Your task to perform on an android device: toggle location history Image 0: 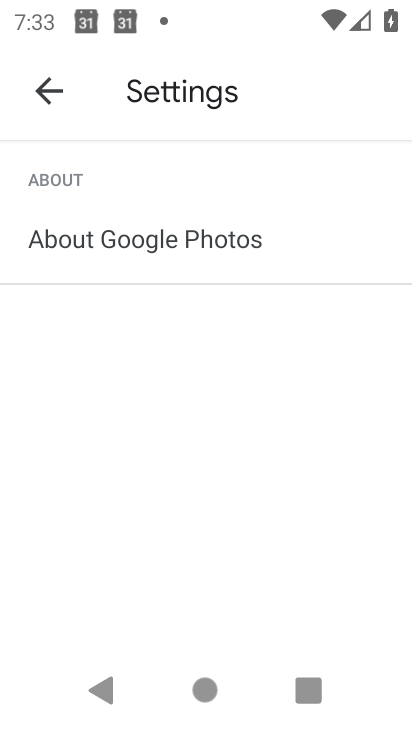
Step 0: press back button
Your task to perform on an android device: toggle location history Image 1: 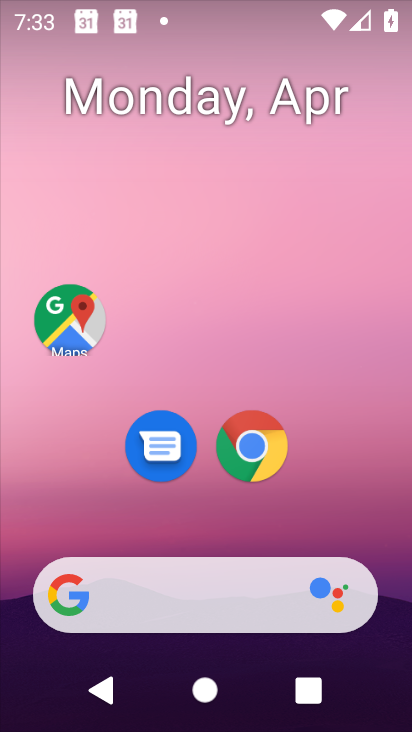
Step 1: drag from (395, 668) to (232, 42)
Your task to perform on an android device: toggle location history Image 2: 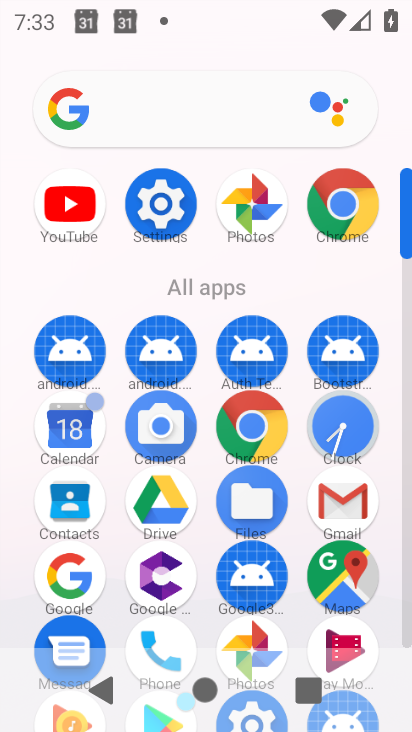
Step 2: click (343, 575)
Your task to perform on an android device: toggle location history Image 3: 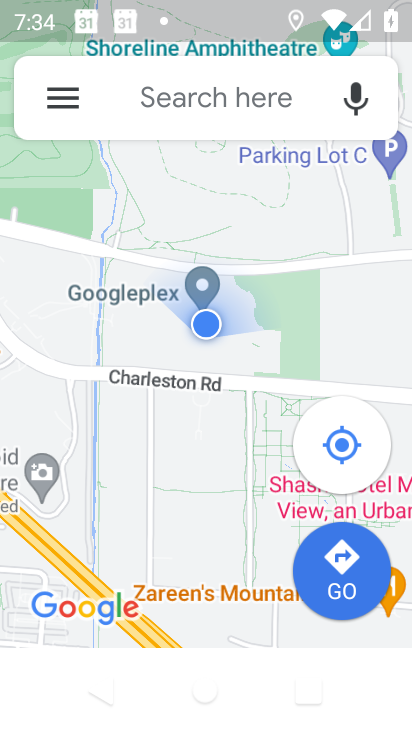
Step 3: click (54, 93)
Your task to perform on an android device: toggle location history Image 4: 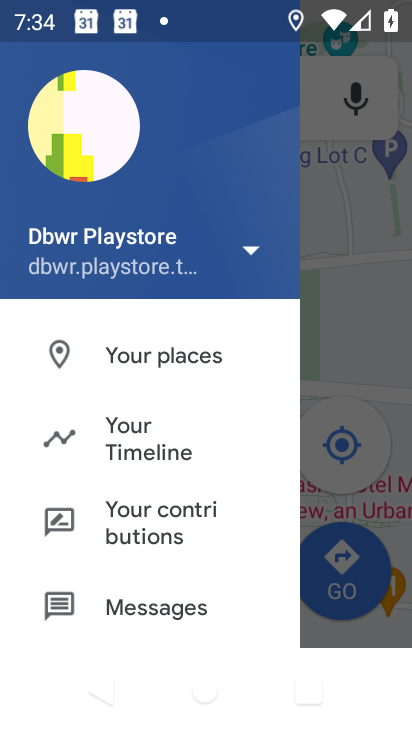
Step 4: drag from (153, 535) to (148, 299)
Your task to perform on an android device: toggle location history Image 5: 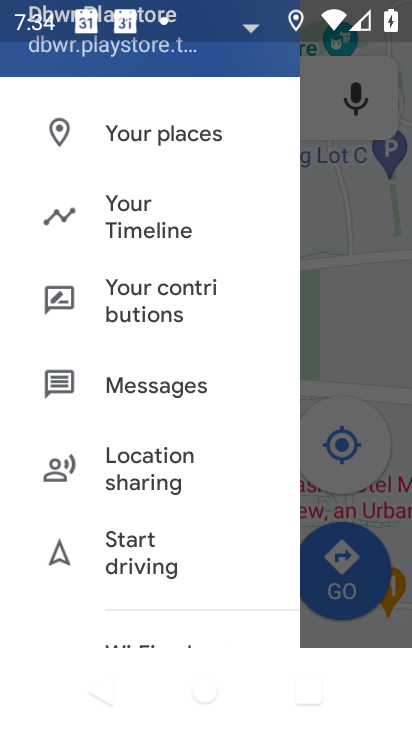
Step 5: drag from (171, 589) to (165, 165)
Your task to perform on an android device: toggle location history Image 6: 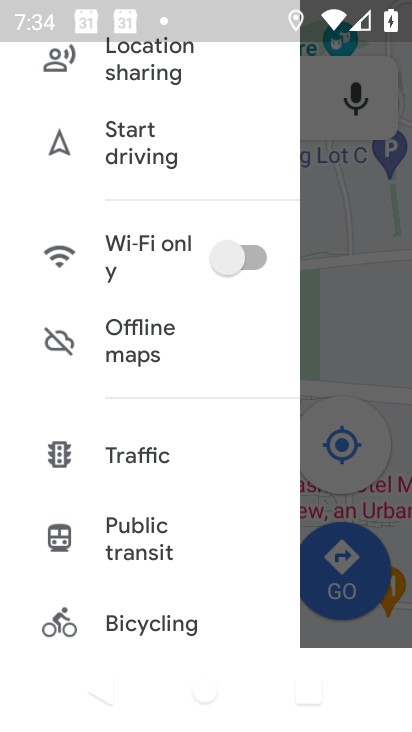
Step 6: drag from (133, 568) to (123, 107)
Your task to perform on an android device: toggle location history Image 7: 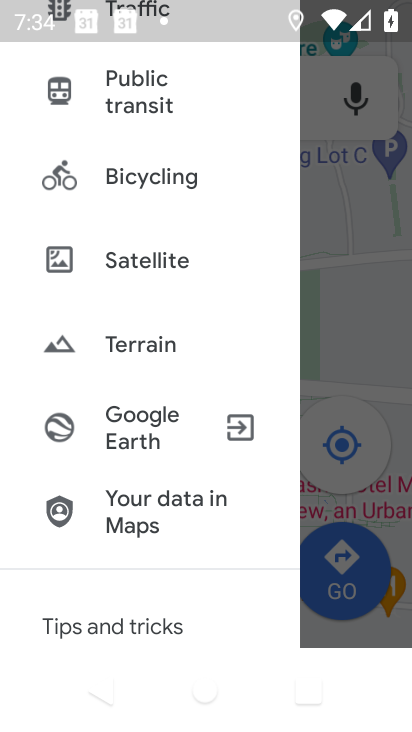
Step 7: drag from (89, 630) to (127, 167)
Your task to perform on an android device: toggle location history Image 8: 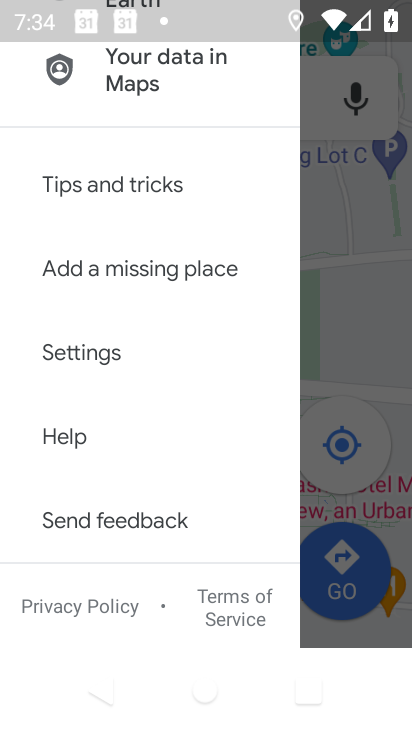
Step 8: click (90, 359)
Your task to perform on an android device: toggle location history Image 9: 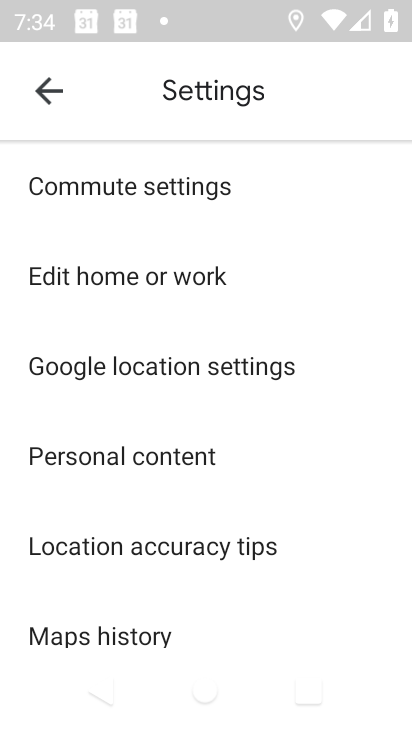
Step 9: drag from (263, 521) to (252, 164)
Your task to perform on an android device: toggle location history Image 10: 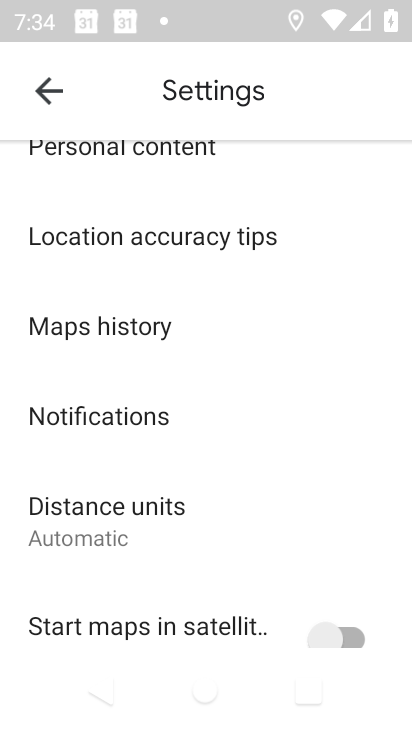
Step 10: drag from (185, 538) to (195, 169)
Your task to perform on an android device: toggle location history Image 11: 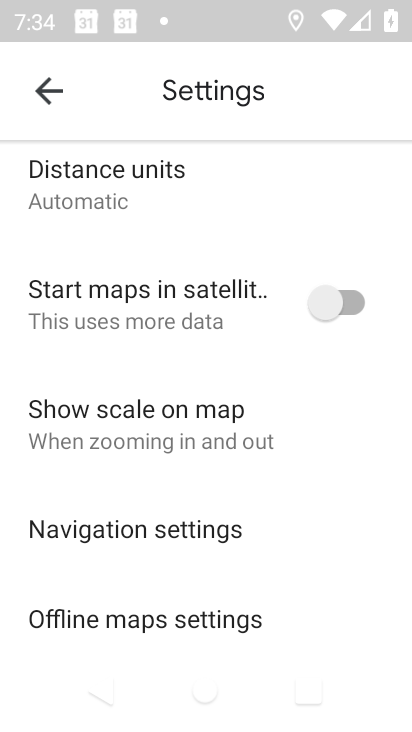
Step 11: drag from (166, 510) to (163, 228)
Your task to perform on an android device: toggle location history Image 12: 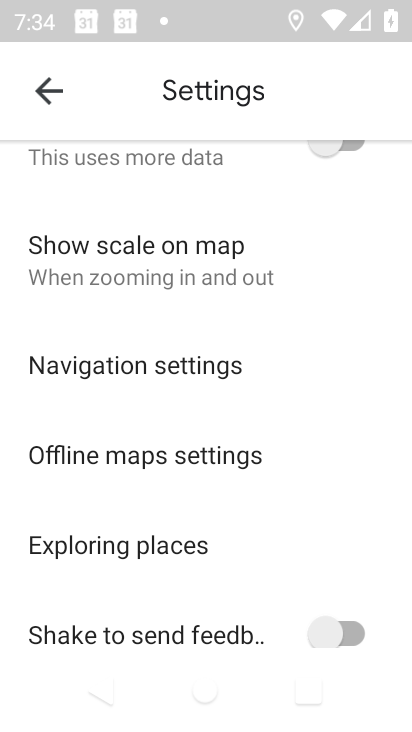
Step 12: drag from (130, 499) to (147, 199)
Your task to perform on an android device: toggle location history Image 13: 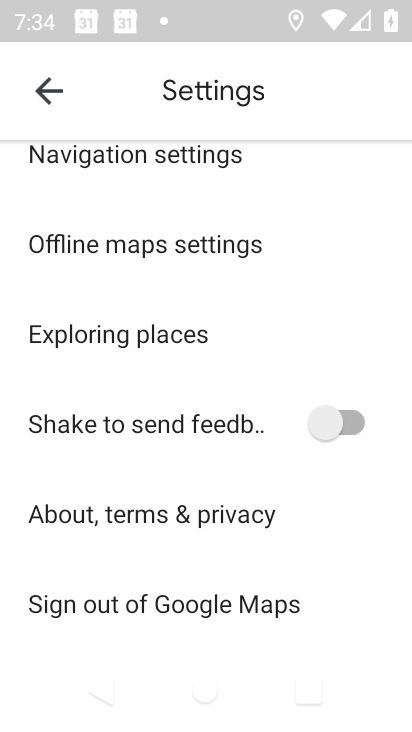
Step 13: drag from (146, 555) to (165, 281)
Your task to perform on an android device: toggle location history Image 14: 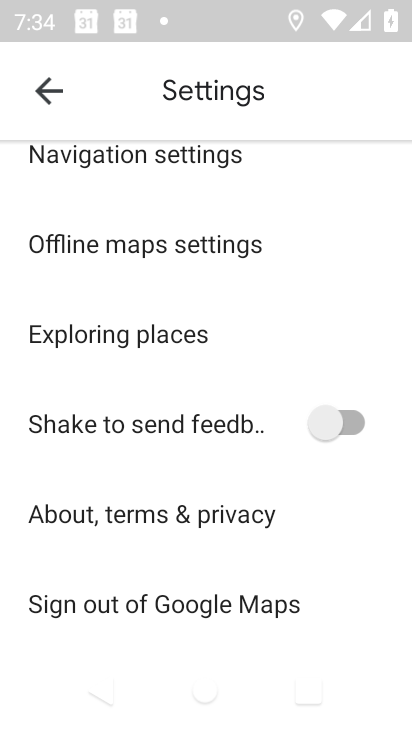
Step 14: drag from (178, 299) to (160, 596)
Your task to perform on an android device: toggle location history Image 15: 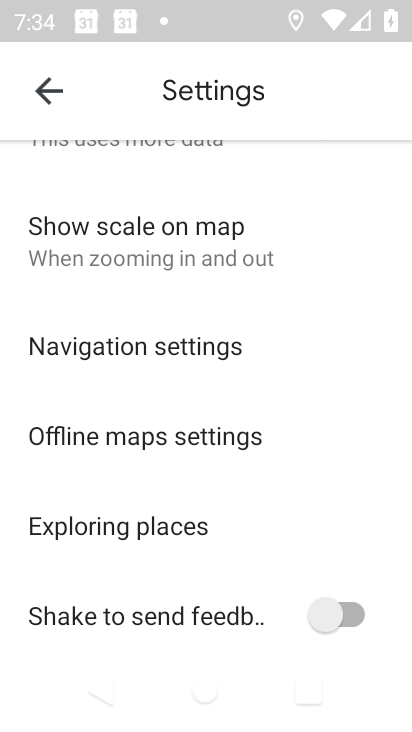
Step 15: drag from (164, 238) to (136, 595)
Your task to perform on an android device: toggle location history Image 16: 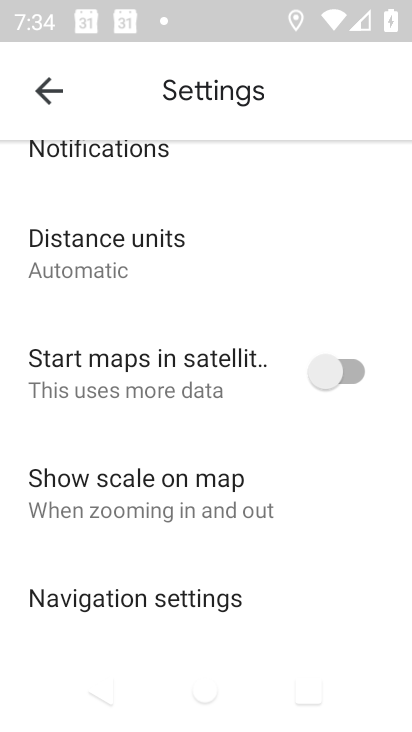
Step 16: drag from (147, 375) to (140, 580)
Your task to perform on an android device: toggle location history Image 17: 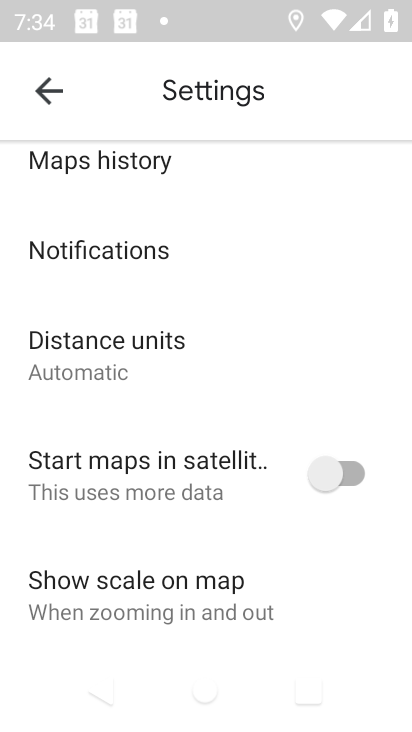
Step 17: drag from (151, 255) to (129, 568)
Your task to perform on an android device: toggle location history Image 18: 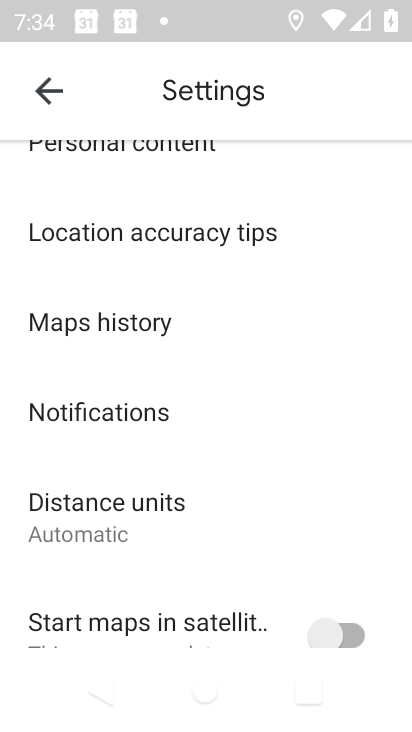
Step 18: click (117, 335)
Your task to perform on an android device: toggle location history Image 19: 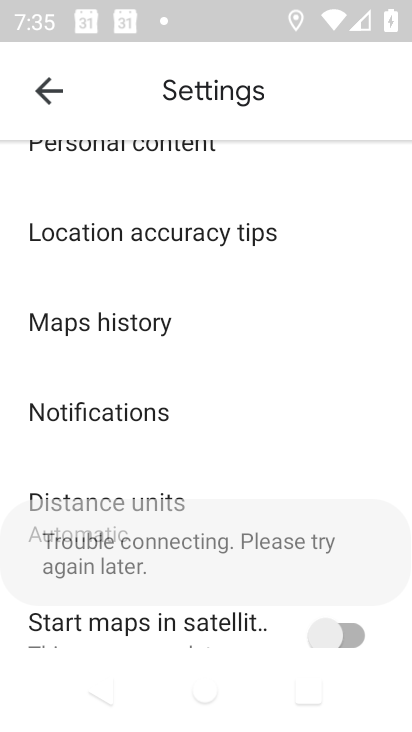
Step 19: drag from (258, 242) to (258, 453)
Your task to perform on an android device: toggle location history Image 20: 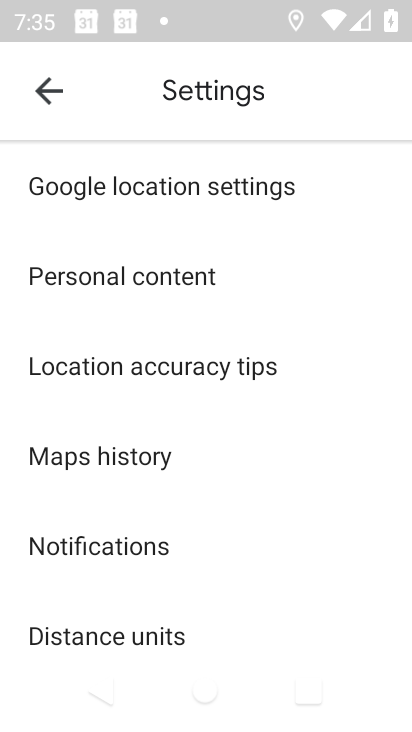
Step 20: click (218, 192)
Your task to perform on an android device: toggle location history Image 21: 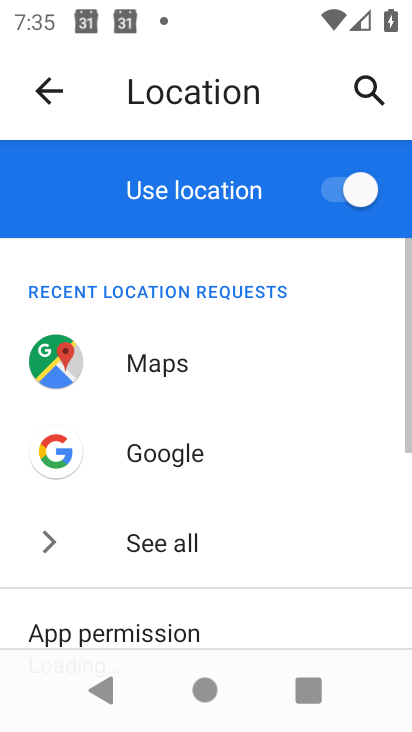
Step 21: drag from (256, 538) to (228, 146)
Your task to perform on an android device: toggle location history Image 22: 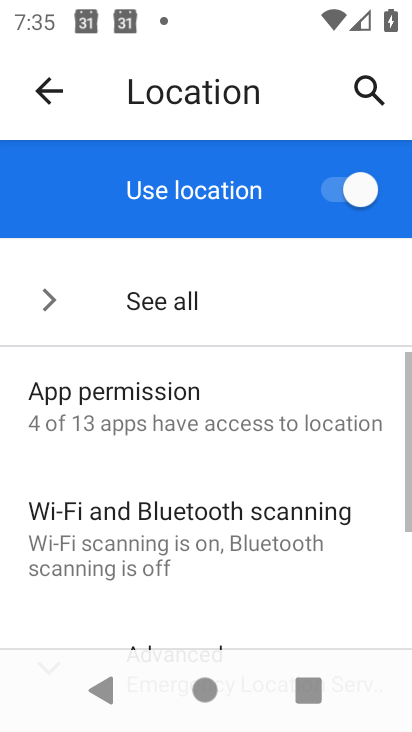
Step 22: drag from (259, 579) to (257, 229)
Your task to perform on an android device: toggle location history Image 23: 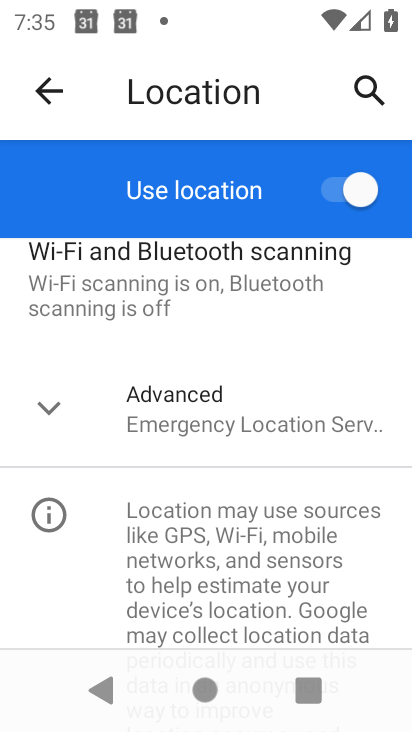
Step 23: click (219, 409)
Your task to perform on an android device: toggle location history Image 24: 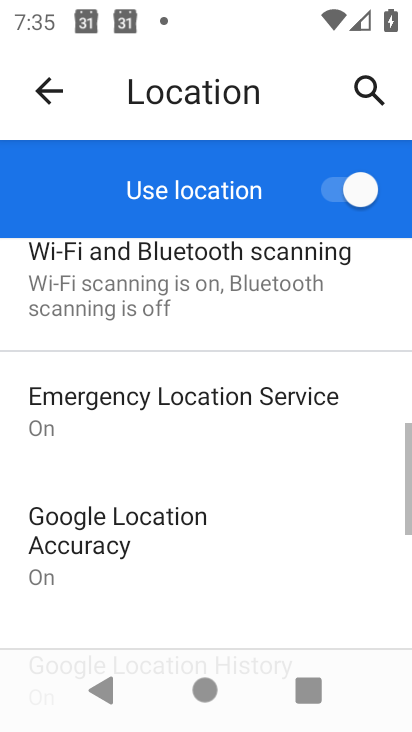
Step 24: drag from (226, 579) to (228, 267)
Your task to perform on an android device: toggle location history Image 25: 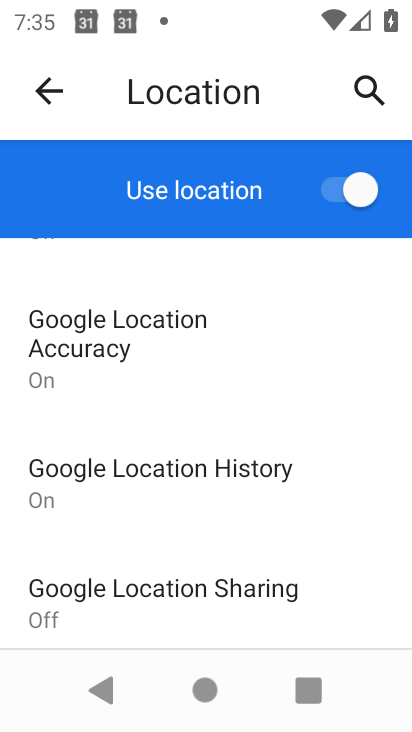
Step 25: click (192, 480)
Your task to perform on an android device: toggle location history Image 26: 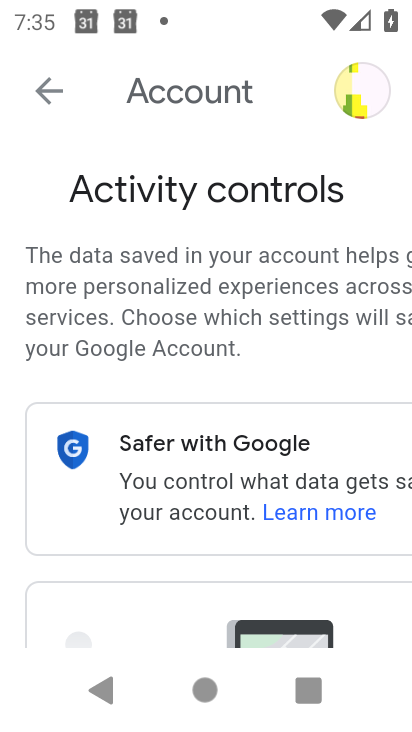
Step 26: drag from (142, 375) to (99, 124)
Your task to perform on an android device: toggle location history Image 27: 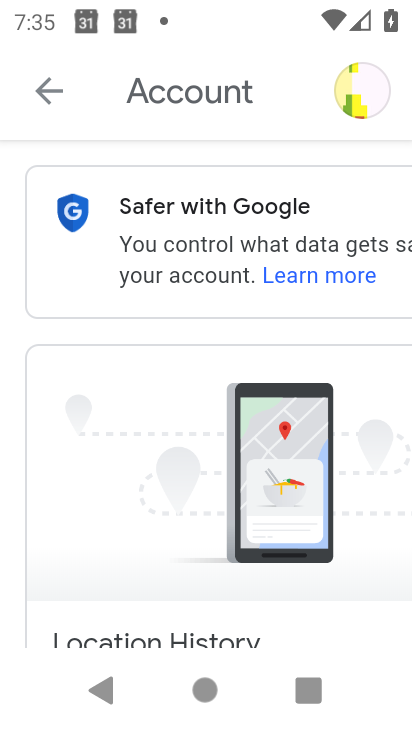
Step 27: drag from (173, 464) to (64, 159)
Your task to perform on an android device: toggle location history Image 28: 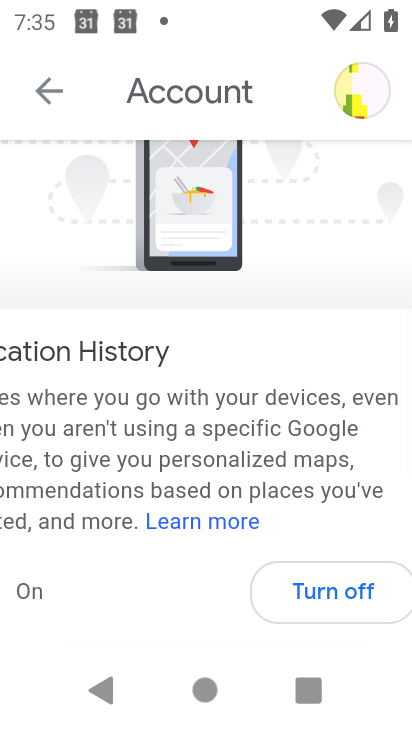
Step 28: drag from (174, 464) to (98, 161)
Your task to perform on an android device: toggle location history Image 29: 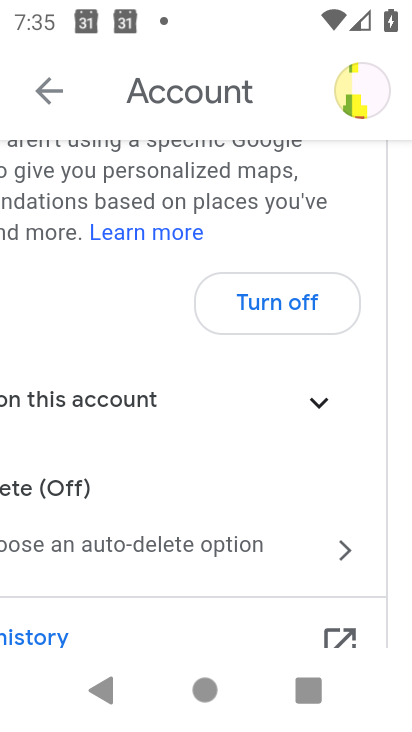
Step 29: drag from (135, 255) to (126, 390)
Your task to perform on an android device: toggle location history Image 30: 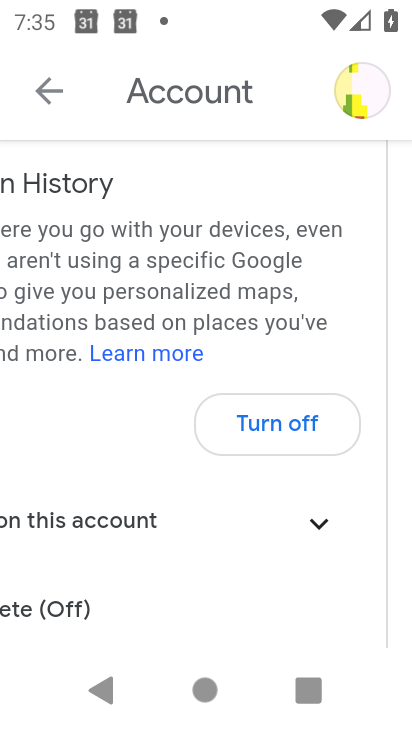
Step 30: click (272, 408)
Your task to perform on an android device: toggle location history Image 31: 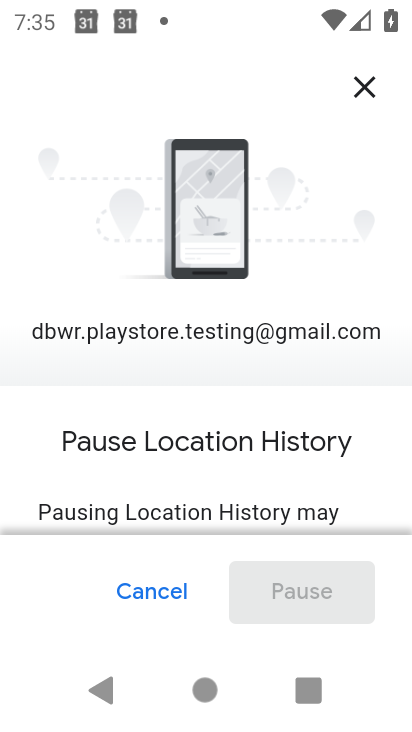
Step 31: drag from (295, 445) to (273, 52)
Your task to perform on an android device: toggle location history Image 32: 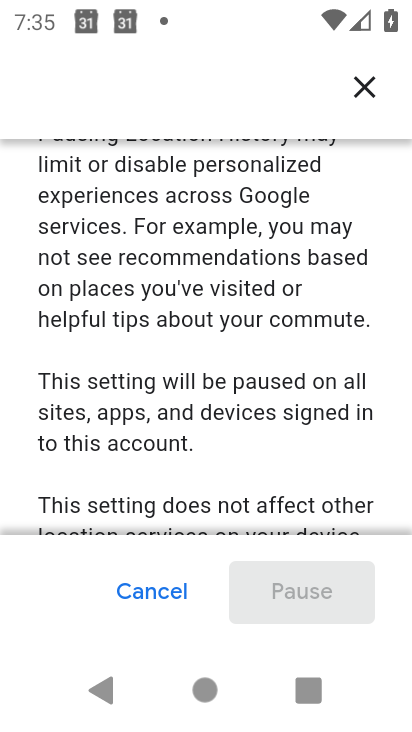
Step 32: drag from (236, 350) to (223, 81)
Your task to perform on an android device: toggle location history Image 33: 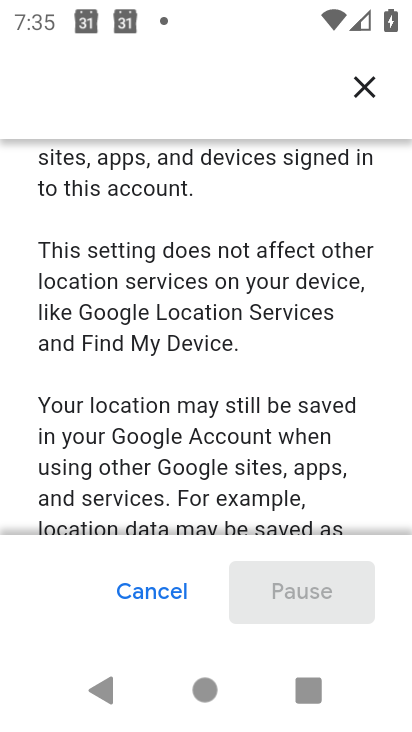
Step 33: drag from (222, 442) to (236, 99)
Your task to perform on an android device: toggle location history Image 34: 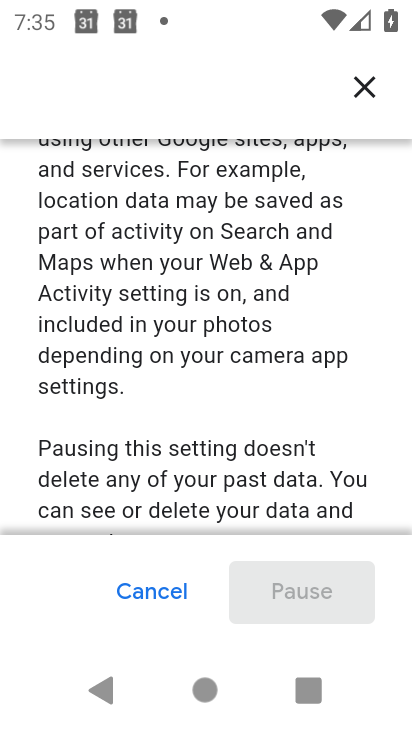
Step 34: drag from (224, 446) to (228, 124)
Your task to perform on an android device: toggle location history Image 35: 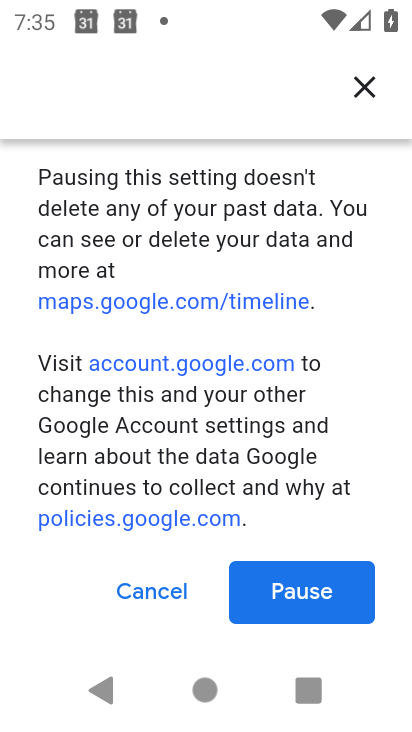
Step 35: drag from (184, 439) to (216, 107)
Your task to perform on an android device: toggle location history Image 36: 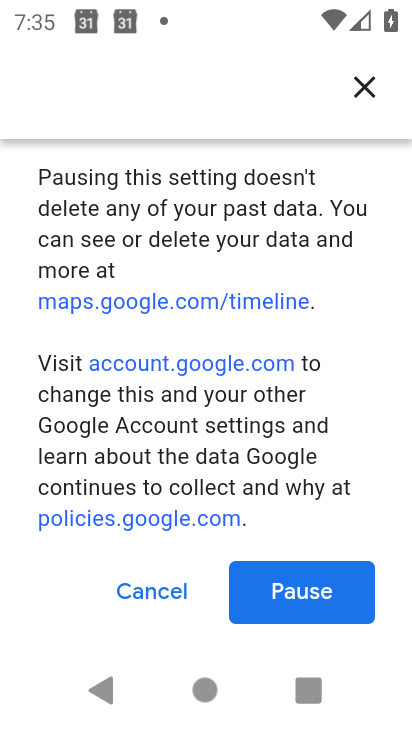
Step 36: click (323, 586)
Your task to perform on an android device: toggle location history Image 37: 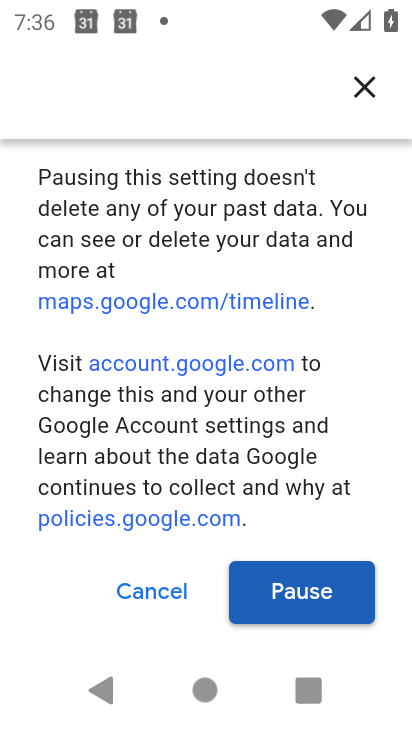
Step 37: click (306, 593)
Your task to perform on an android device: toggle location history Image 38: 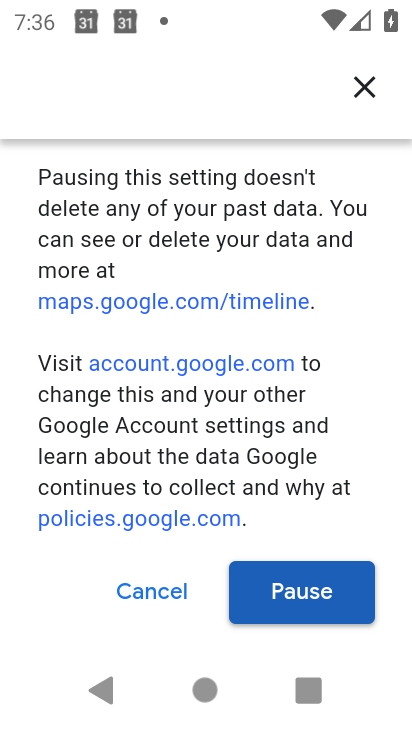
Step 38: click (306, 593)
Your task to perform on an android device: toggle location history Image 39: 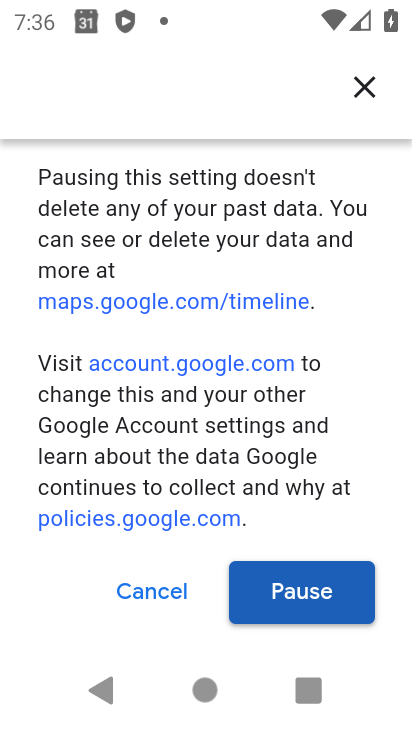
Step 39: click (306, 593)
Your task to perform on an android device: toggle location history Image 40: 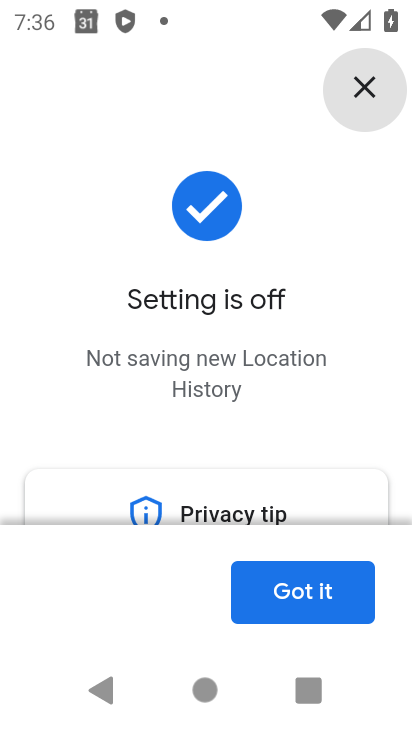
Step 40: task complete